Your task to perform on an android device: find which apps use the phone's location Image 0: 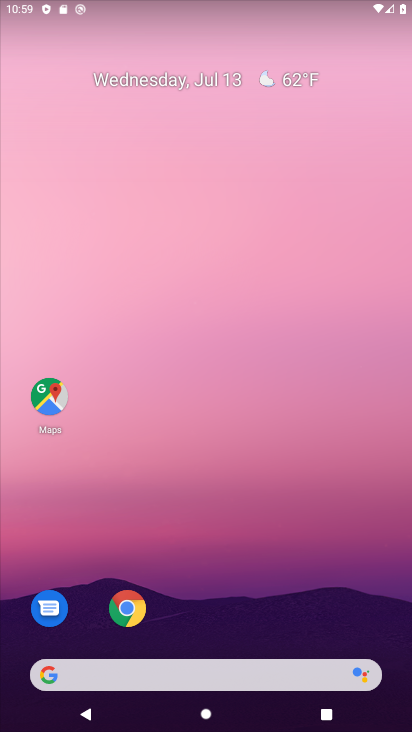
Step 0: drag from (252, 691) to (231, 143)
Your task to perform on an android device: find which apps use the phone's location Image 1: 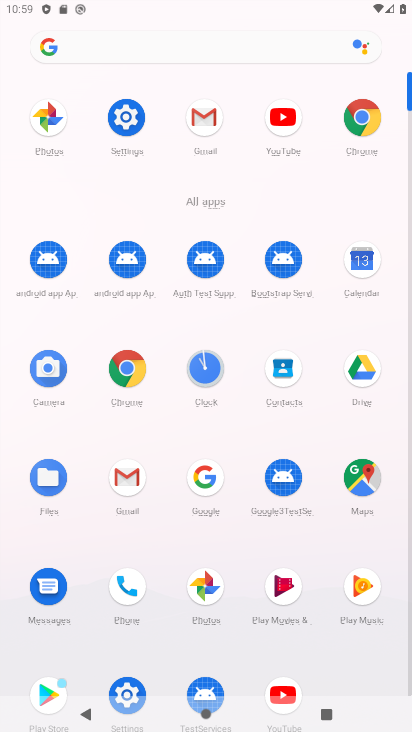
Step 1: click (123, 123)
Your task to perform on an android device: find which apps use the phone's location Image 2: 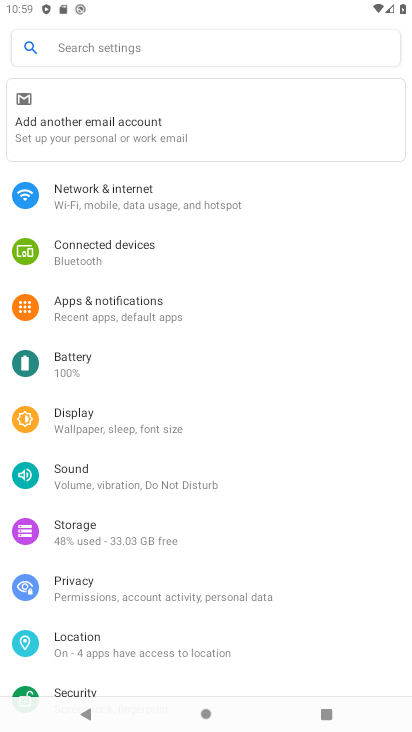
Step 2: click (75, 638)
Your task to perform on an android device: find which apps use the phone's location Image 3: 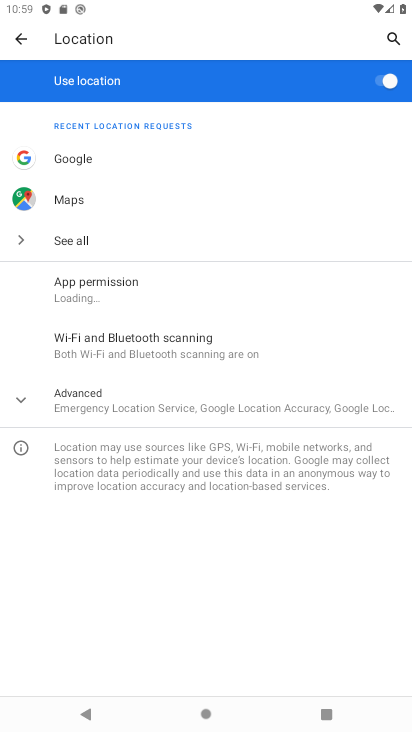
Step 3: click (90, 280)
Your task to perform on an android device: find which apps use the phone's location Image 4: 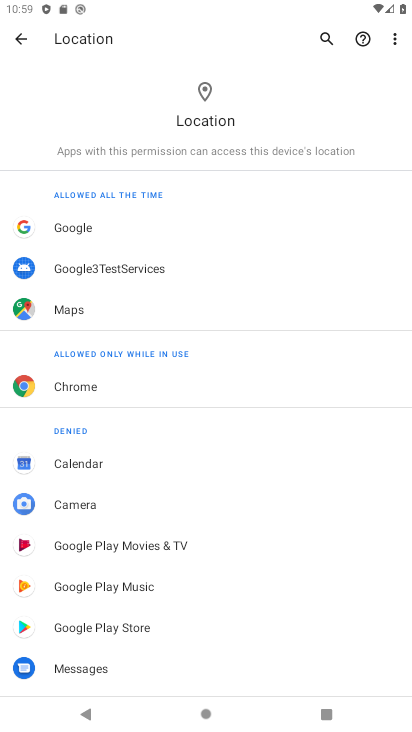
Step 4: task complete